Your task to perform on an android device: turn off smart reply in the gmail app Image 0: 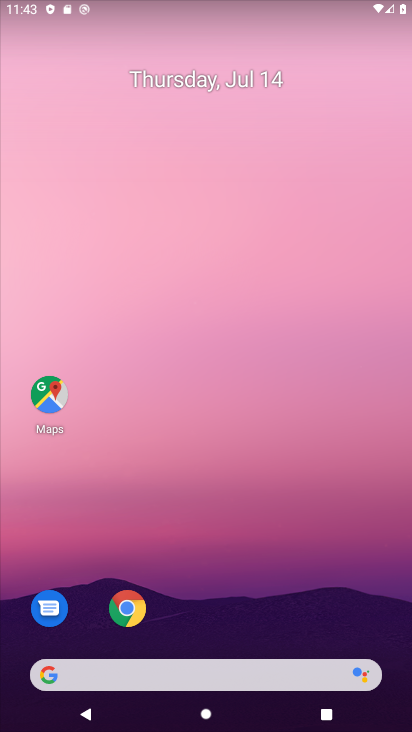
Step 0: drag from (95, 665) to (121, 10)
Your task to perform on an android device: turn off smart reply in the gmail app Image 1: 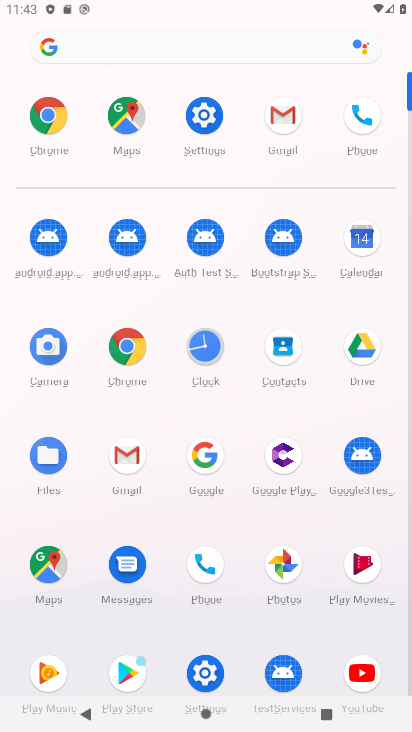
Step 1: click (122, 452)
Your task to perform on an android device: turn off smart reply in the gmail app Image 2: 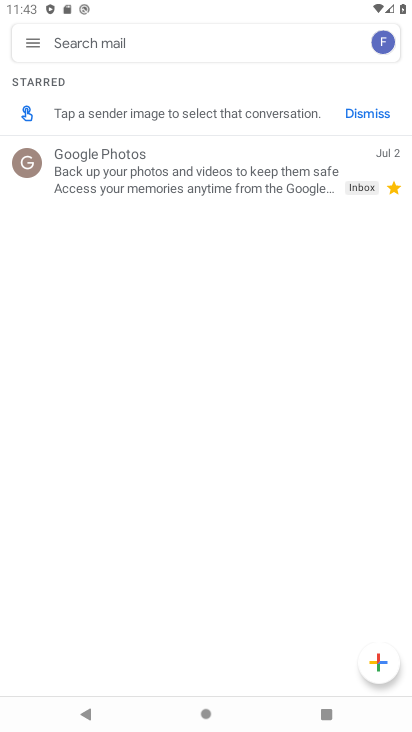
Step 2: click (31, 31)
Your task to perform on an android device: turn off smart reply in the gmail app Image 3: 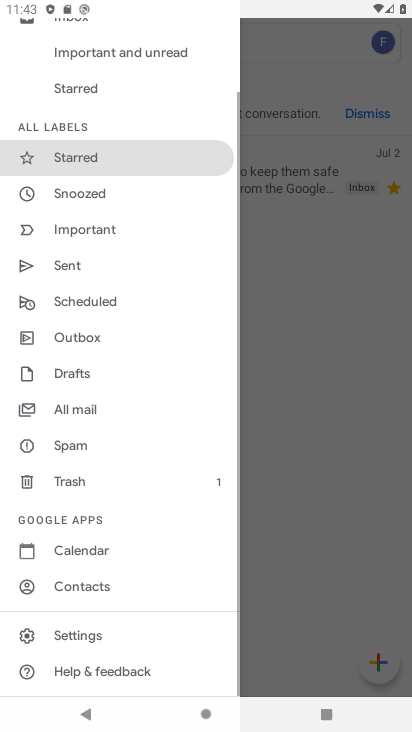
Step 3: click (102, 633)
Your task to perform on an android device: turn off smart reply in the gmail app Image 4: 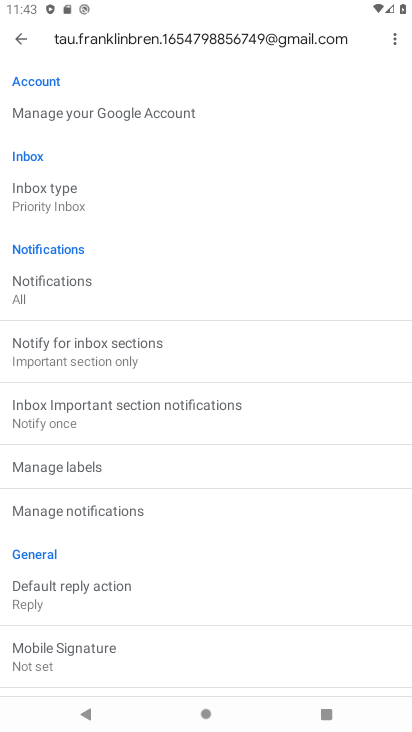
Step 4: drag from (145, 597) to (173, 159)
Your task to perform on an android device: turn off smart reply in the gmail app Image 5: 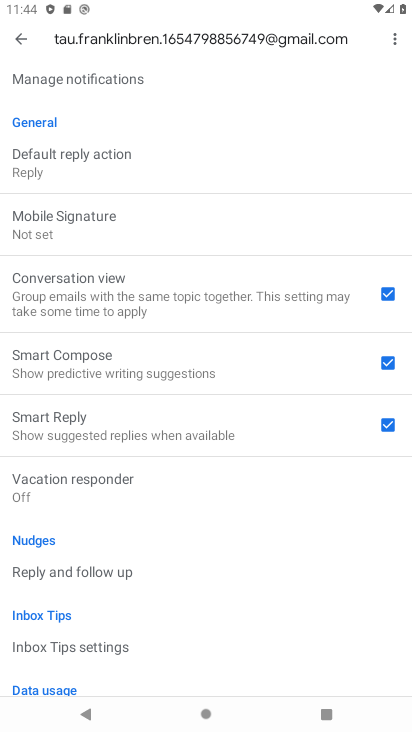
Step 5: drag from (160, 529) to (169, 146)
Your task to perform on an android device: turn off smart reply in the gmail app Image 6: 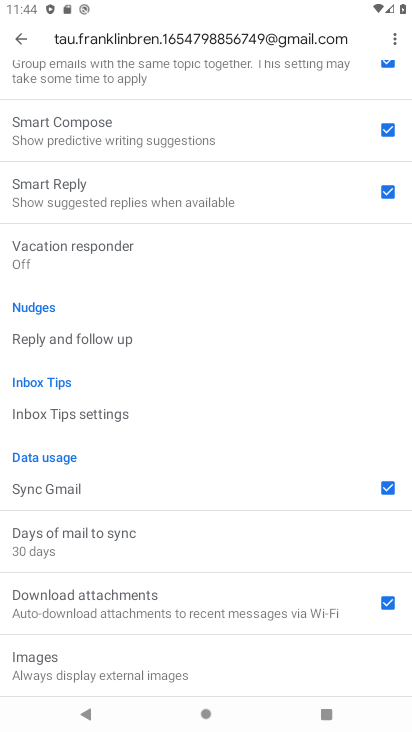
Step 6: drag from (154, 310) to (112, 689)
Your task to perform on an android device: turn off smart reply in the gmail app Image 7: 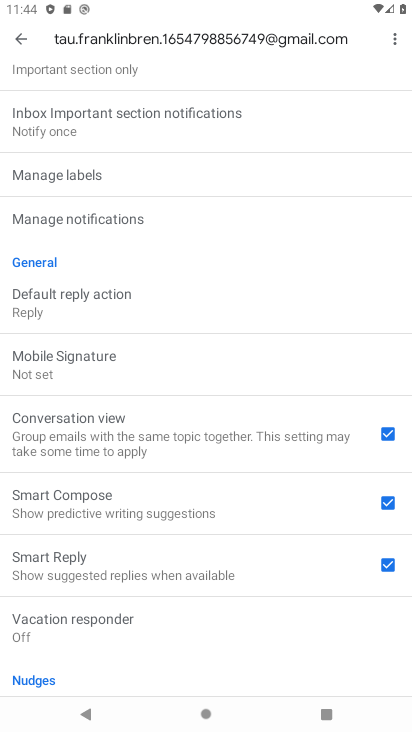
Step 7: click (284, 568)
Your task to perform on an android device: turn off smart reply in the gmail app Image 8: 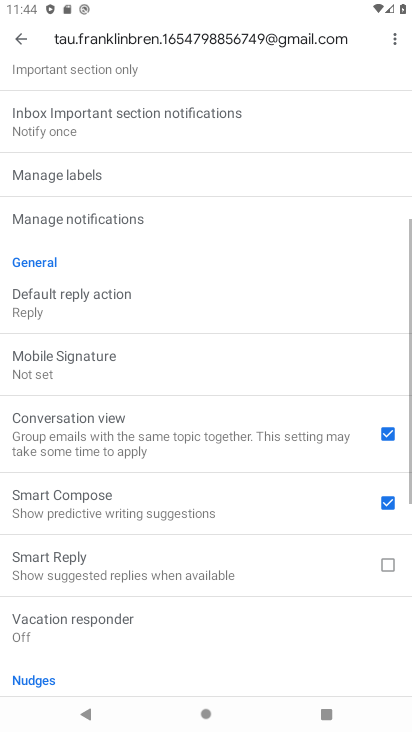
Step 8: task complete